Your task to perform on an android device: turn on notifications settings in the gmail app Image 0: 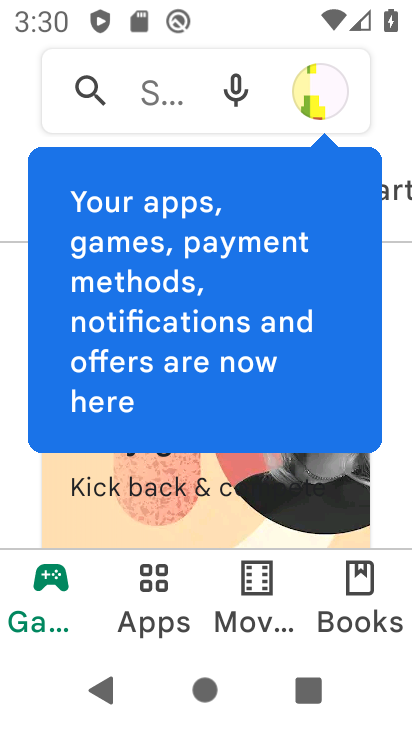
Step 0: press back button
Your task to perform on an android device: turn on notifications settings in the gmail app Image 1: 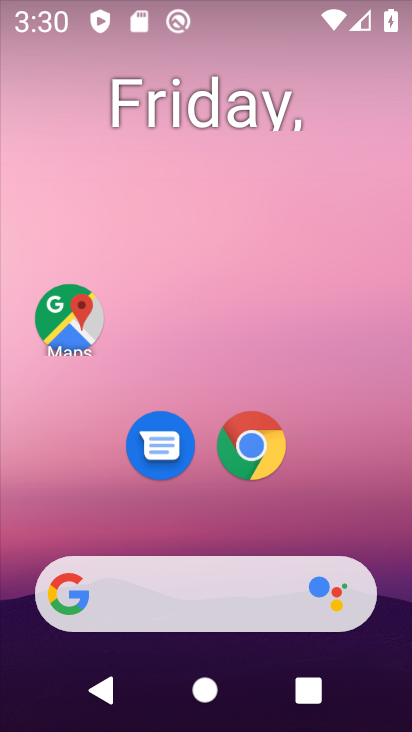
Step 1: drag from (369, 524) to (336, 6)
Your task to perform on an android device: turn on notifications settings in the gmail app Image 2: 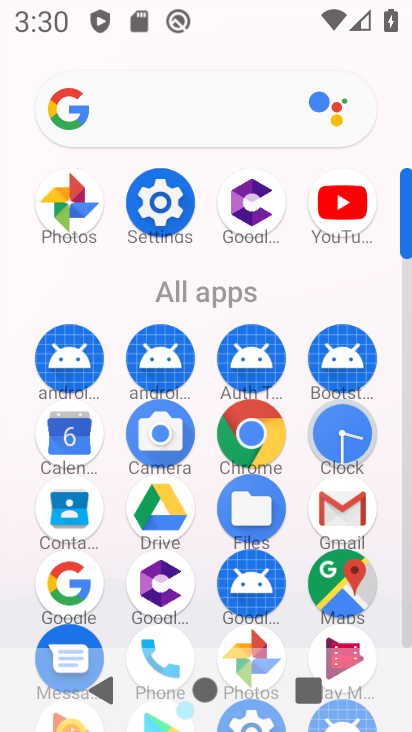
Step 2: drag from (10, 591) to (31, 178)
Your task to perform on an android device: turn on notifications settings in the gmail app Image 3: 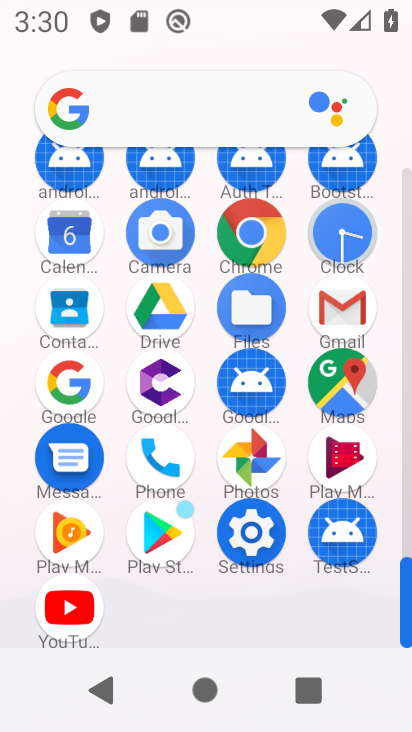
Step 3: click (343, 307)
Your task to perform on an android device: turn on notifications settings in the gmail app Image 4: 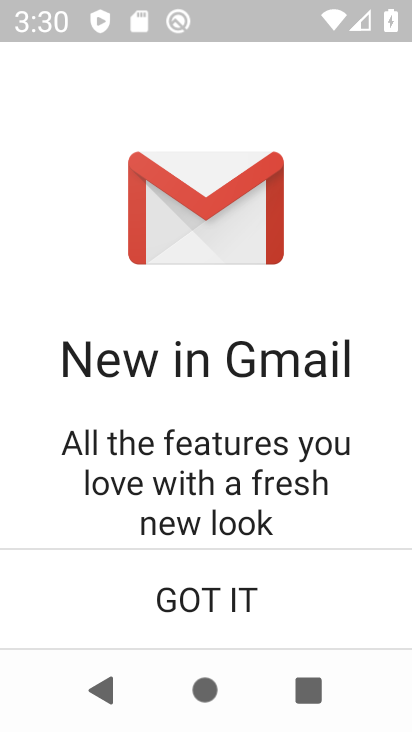
Step 4: click (246, 593)
Your task to perform on an android device: turn on notifications settings in the gmail app Image 5: 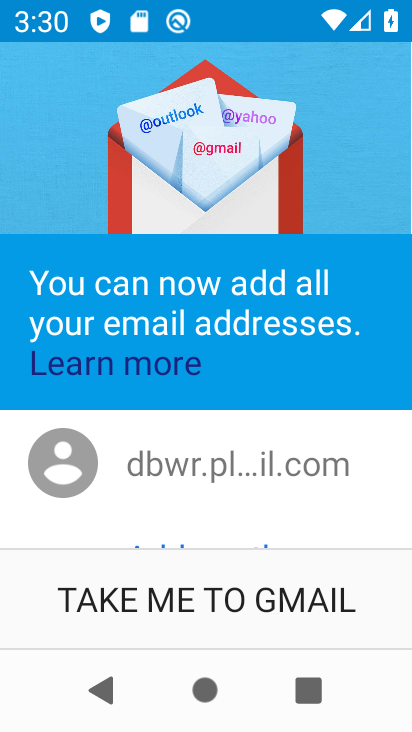
Step 5: click (248, 577)
Your task to perform on an android device: turn on notifications settings in the gmail app Image 6: 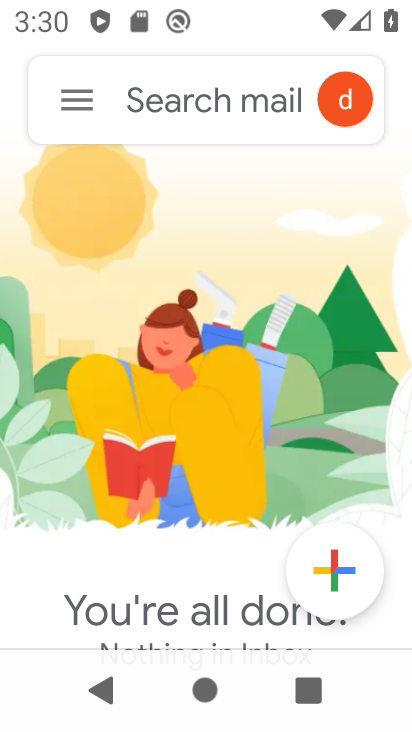
Step 6: click (57, 92)
Your task to perform on an android device: turn on notifications settings in the gmail app Image 7: 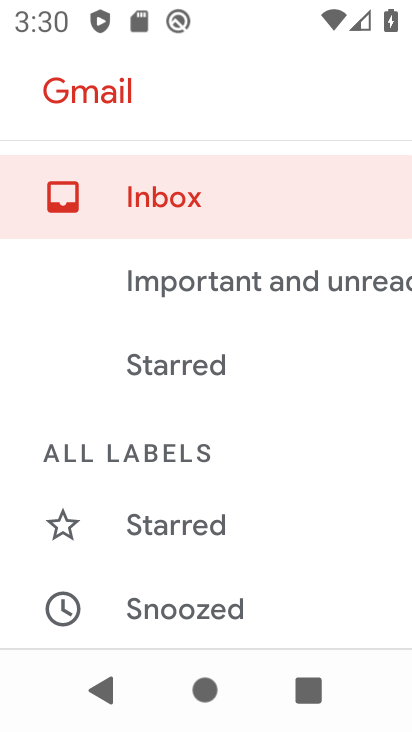
Step 7: drag from (180, 471) to (234, 126)
Your task to perform on an android device: turn on notifications settings in the gmail app Image 8: 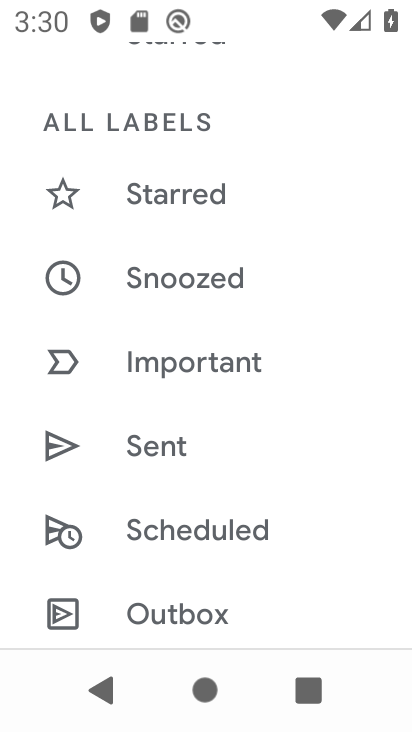
Step 8: drag from (242, 572) to (278, 152)
Your task to perform on an android device: turn on notifications settings in the gmail app Image 9: 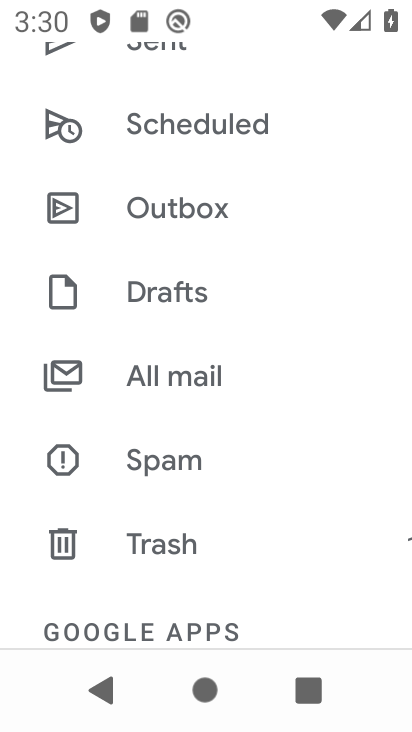
Step 9: drag from (219, 481) to (236, 162)
Your task to perform on an android device: turn on notifications settings in the gmail app Image 10: 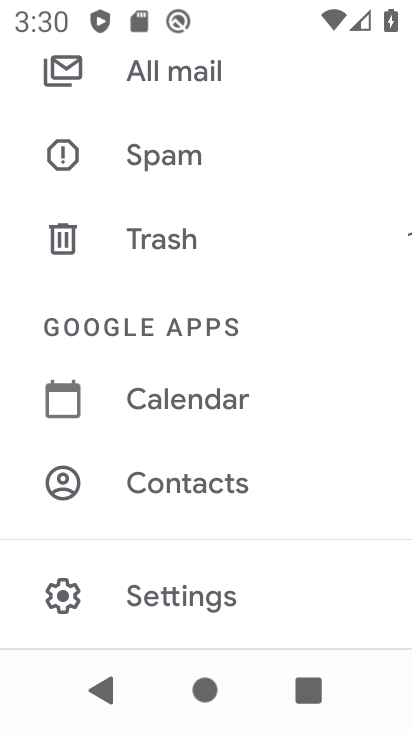
Step 10: drag from (257, 497) to (262, 163)
Your task to perform on an android device: turn on notifications settings in the gmail app Image 11: 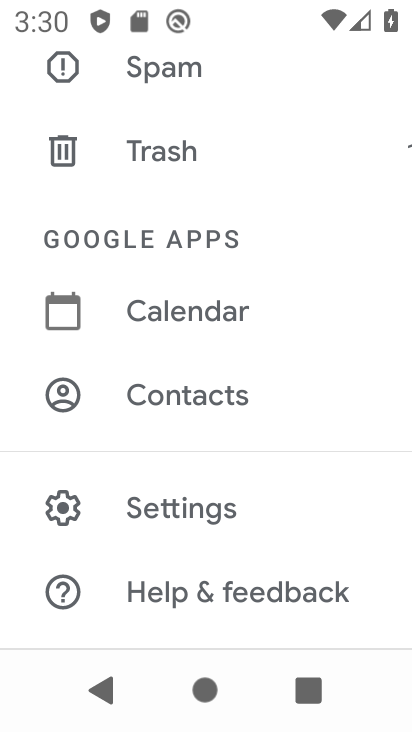
Step 11: click (182, 506)
Your task to perform on an android device: turn on notifications settings in the gmail app Image 12: 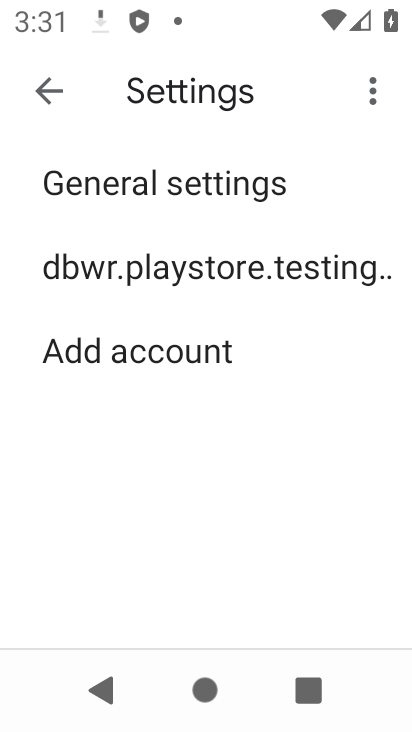
Step 12: click (197, 274)
Your task to perform on an android device: turn on notifications settings in the gmail app Image 13: 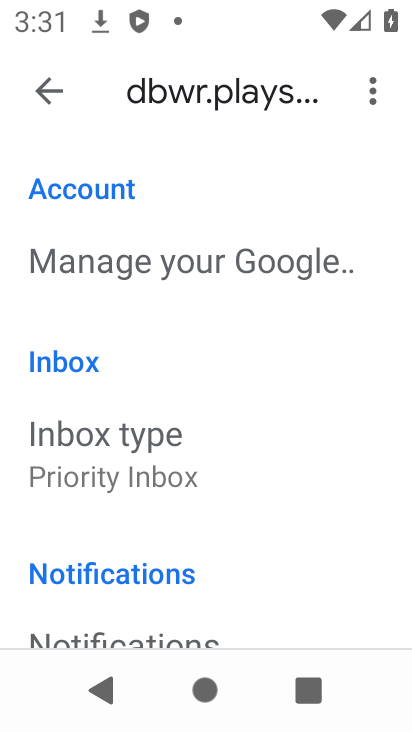
Step 13: drag from (204, 518) to (284, 139)
Your task to perform on an android device: turn on notifications settings in the gmail app Image 14: 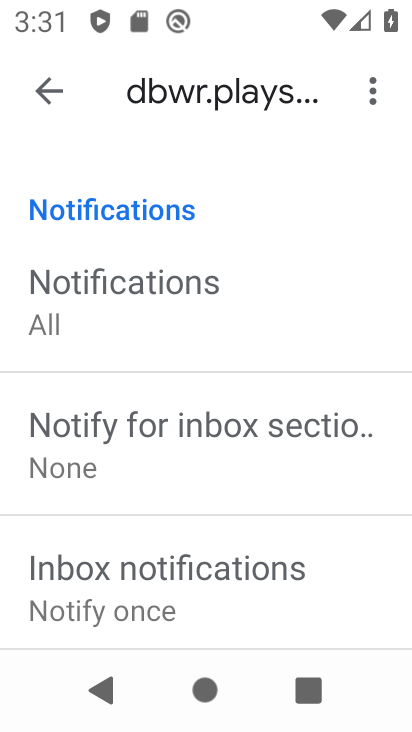
Step 14: drag from (216, 560) to (252, 253)
Your task to perform on an android device: turn on notifications settings in the gmail app Image 15: 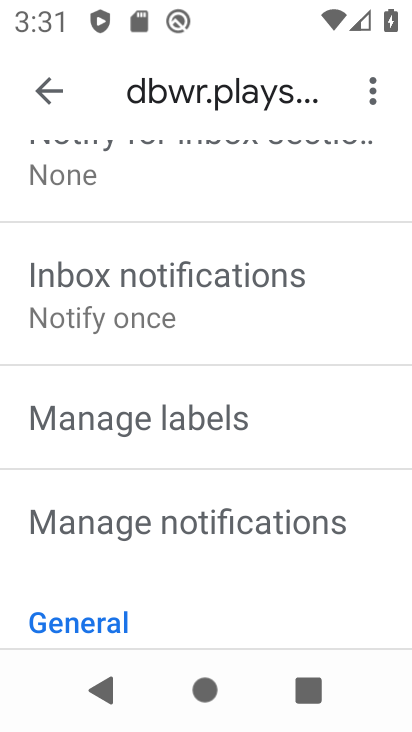
Step 15: click (240, 524)
Your task to perform on an android device: turn on notifications settings in the gmail app Image 16: 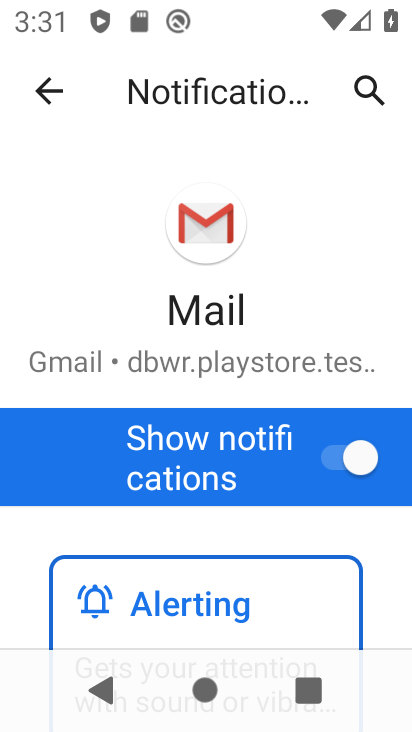
Step 16: task complete